Your task to perform on an android device: find snoozed emails in the gmail app Image 0: 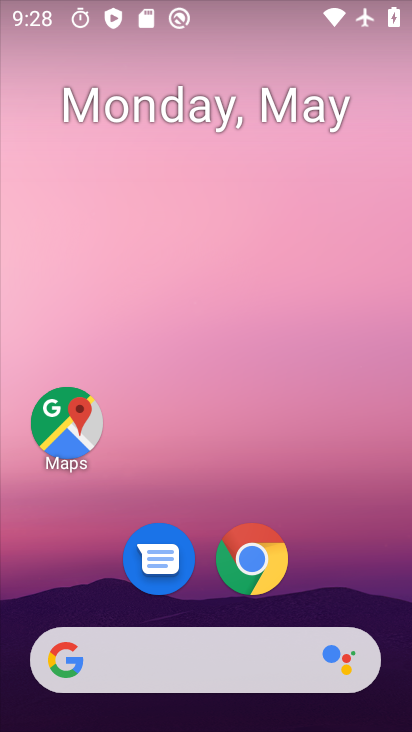
Step 0: drag from (338, 592) to (265, 211)
Your task to perform on an android device: find snoozed emails in the gmail app Image 1: 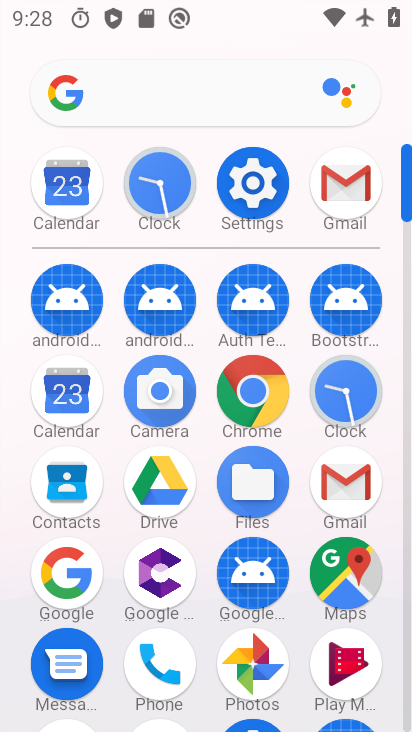
Step 1: click (348, 478)
Your task to perform on an android device: find snoozed emails in the gmail app Image 2: 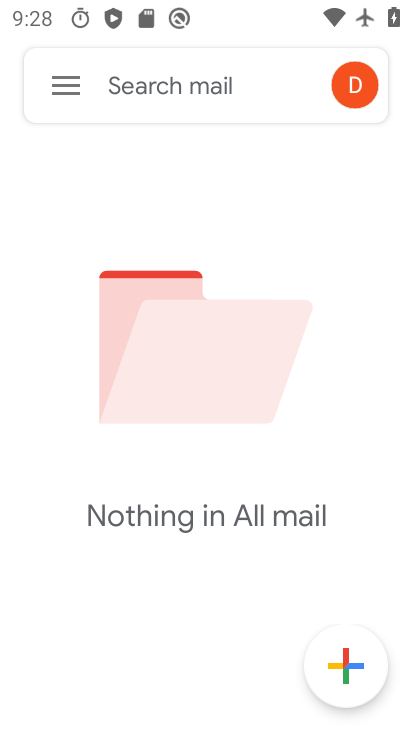
Step 2: click (71, 90)
Your task to perform on an android device: find snoozed emails in the gmail app Image 3: 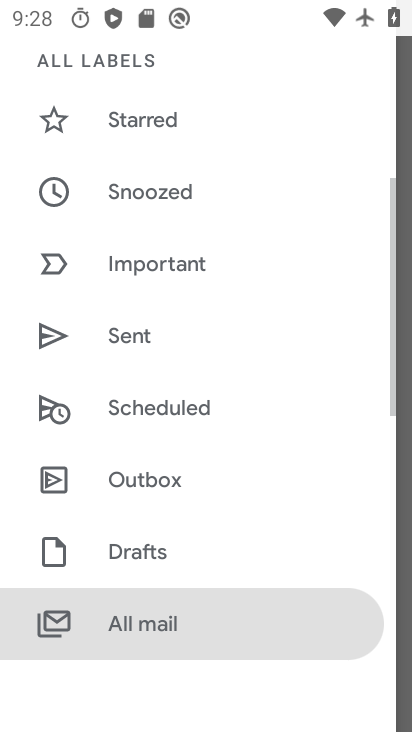
Step 3: click (179, 204)
Your task to perform on an android device: find snoozed emails in the gmail app Image 4: 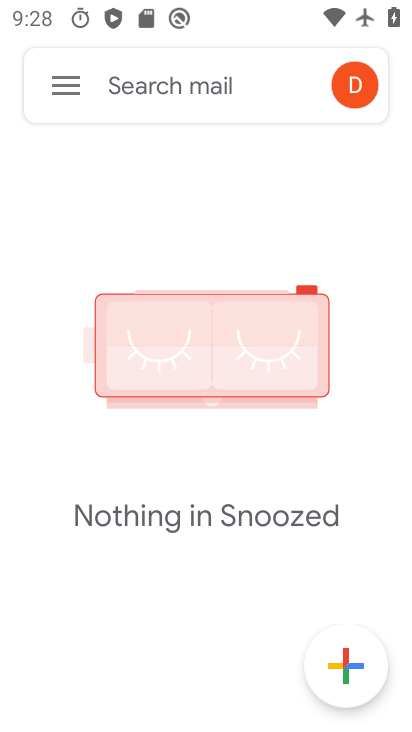
Step 4: task complete